Your task to perform on an android device: turn on notifications settings in the gmail app Image 0: 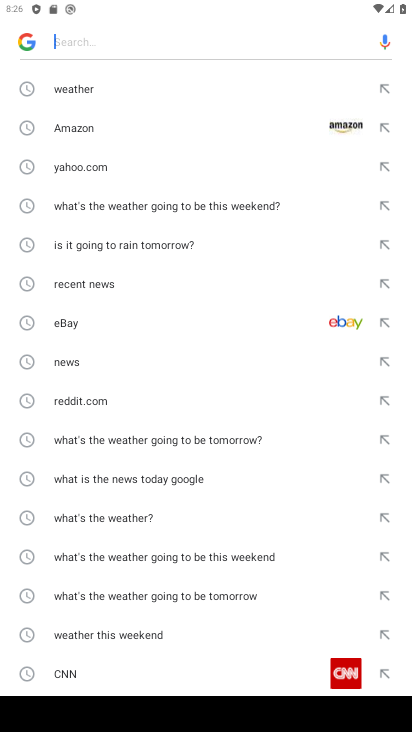
Step 0: press back button
Your task to perform on an android device: turn on notifications settings in the gmail app Image 1: 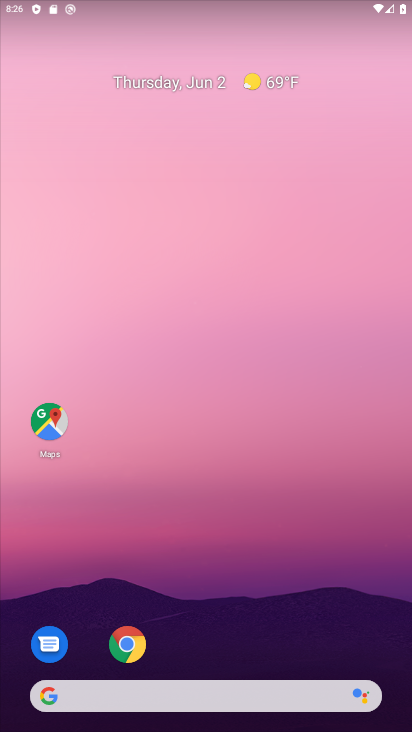
Step 1: drag from (249, 618) to (172, 34)
Your task to perform on an android device: turn on notifications settings in the gmail app Image 2: 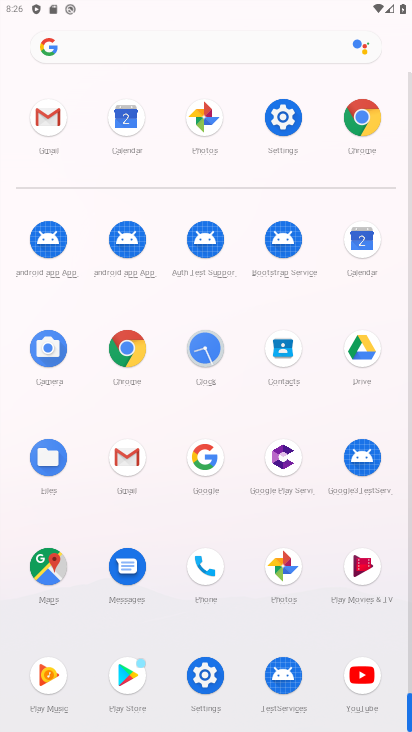
Step 2: click (121, 454)
Your task to perform on an android device: turn on notifications settings in the gmail app Image 3: 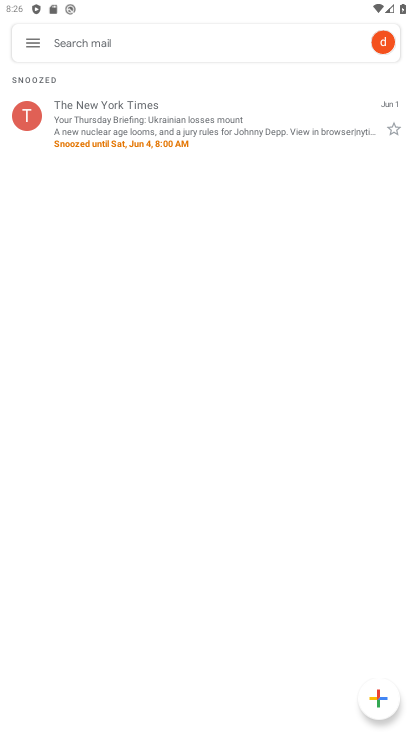
Step 3: click (34, 36)
Your task to perform on an android device: turn on notifications settings in the gmail app Image 4: 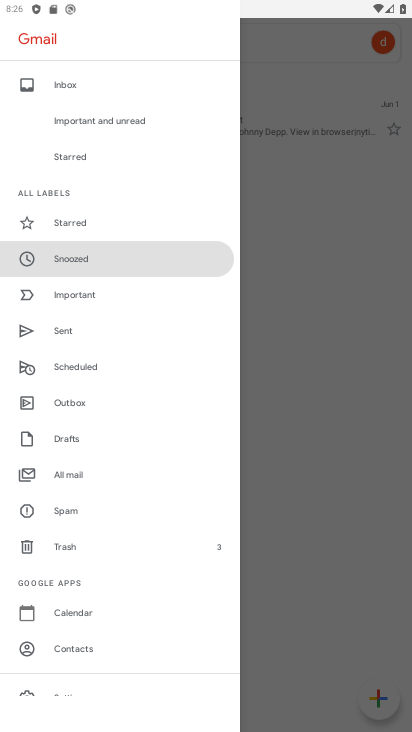
Step 4: drag from (151, 604) to (154, 248)
Your task to perform on an android device: turn on notifications settings in the gmail app Image 5: 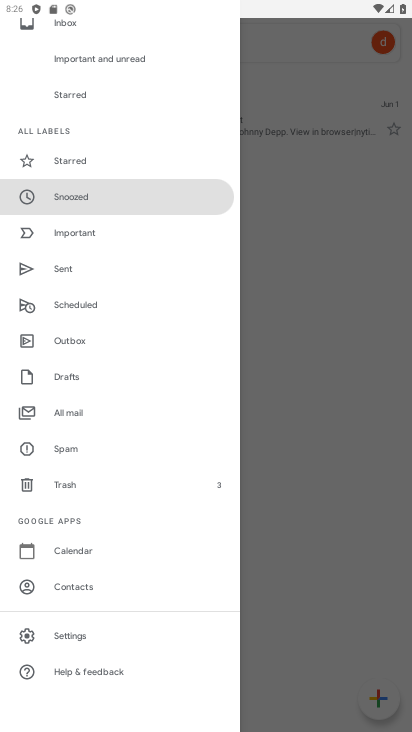
Step 5: click (71, 634)
Your task to perform on an android device: turn on notifications settings in the gmail app Image 6: 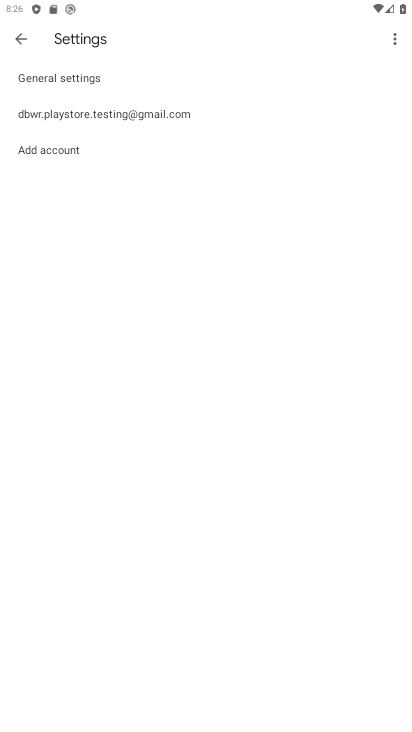
Step 6: click (120, 108)
Your task to perform on an android device: turn on notifications settings in the gmail app Image 7: 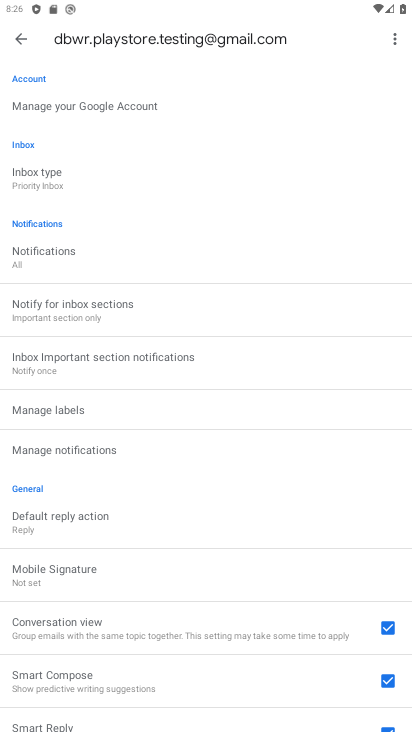
Step 7: click (97, 445)
Your task to perform on an android device: turn on notifications settings in the gmail app Image 8: 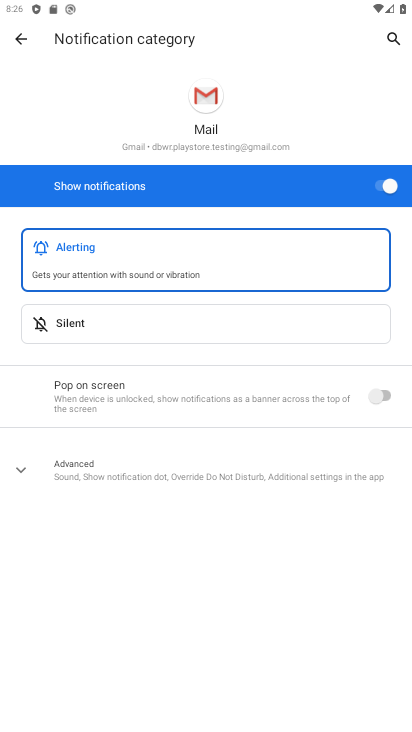
Step 8: click (32, 470)
Your task to perform on an android device: turn on notifications settings in the gmail app Image 9: 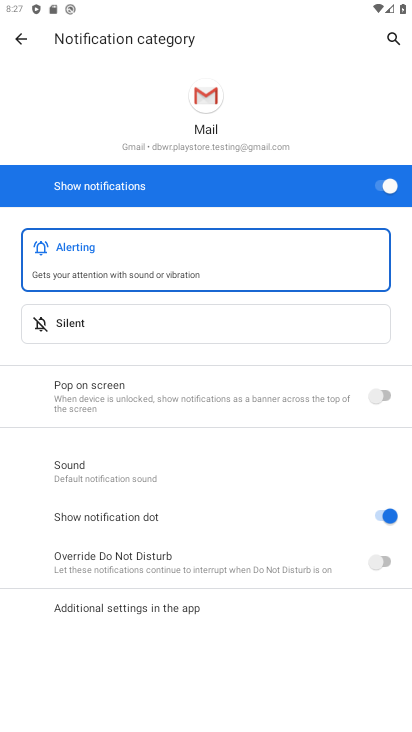
Step 9: task complete